Your task to perform on an android device: turn on showing notifications on the lock screen Image 0: 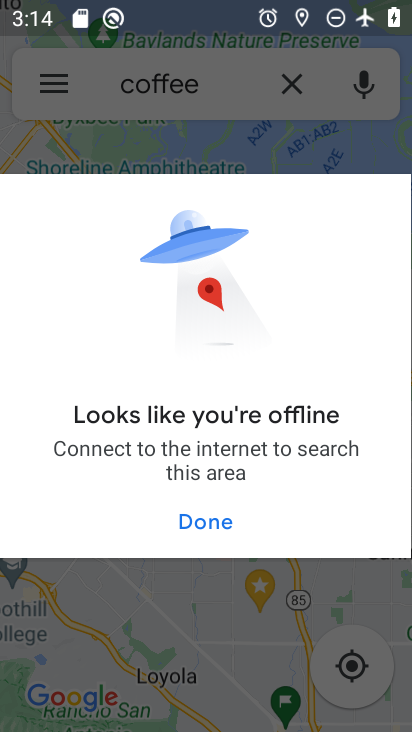
Step 0: press home button
Your task to perform on an android device: turn on showing notifications on the lock screen Image 1: 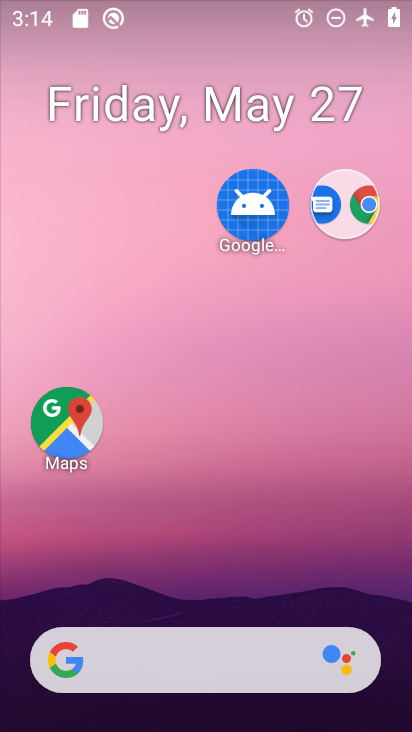
Step 1: drag from (315, 377) to (354, 272)
Your task to perform on an android device: turn on showing notifications on the lock screen Image 2: 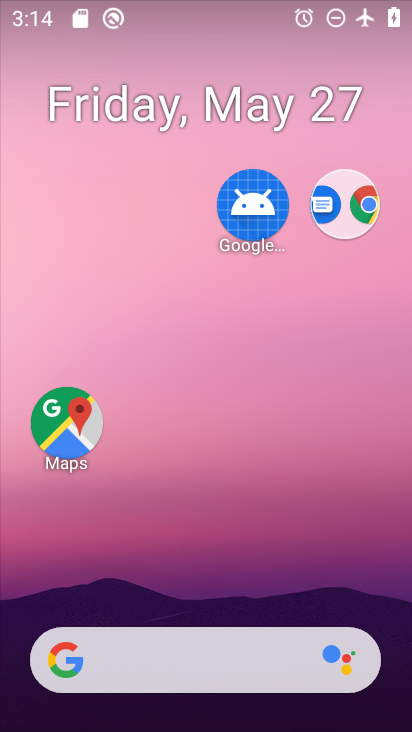
Step 2: drag from (191, 640) to (220, 264)
Your task to perform on an android device: turn on showing notifications on the lock screen Image 3: 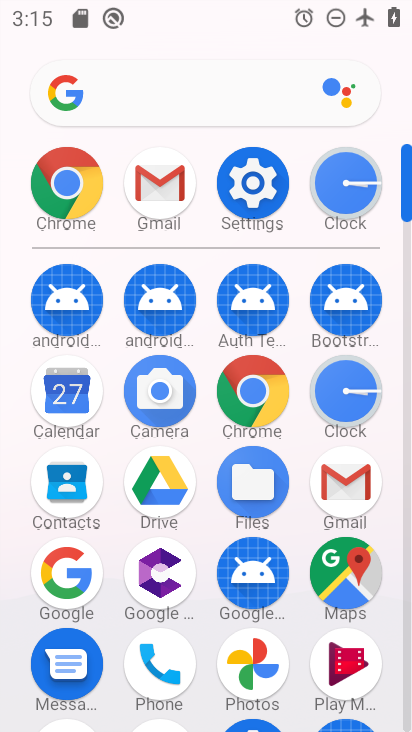
Step 3: click (263, 203)
Your task to perform on an android device: turn on showing notifications on the lock screen Image 4: 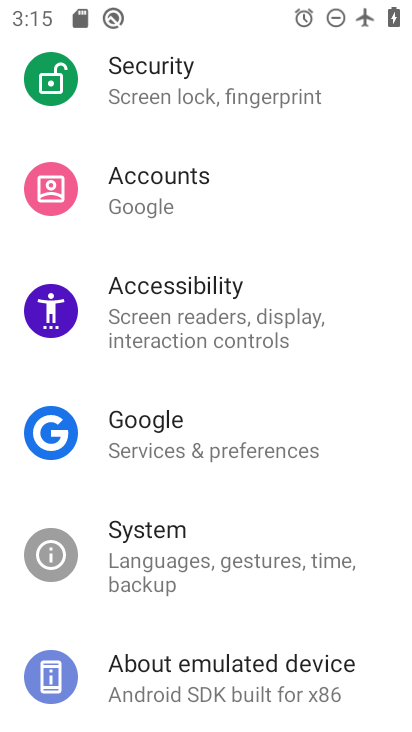
Step 4: drag from (262, 204) to (345, 731)
Your task to perform on an android device: turn on showing notifications on the lock screen Image 5: 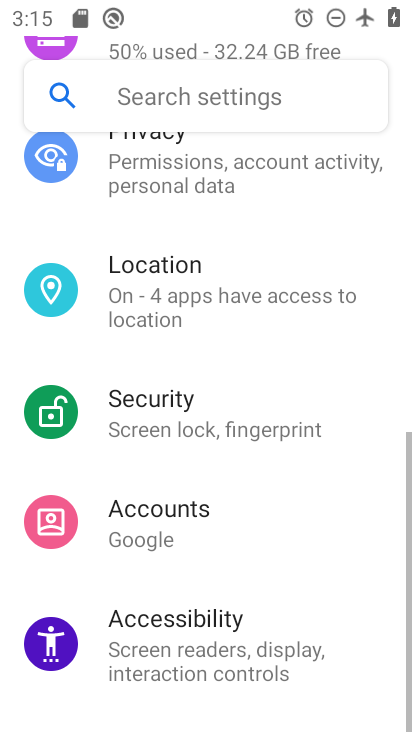
Step 5: drag from (238, 268) to (240, 631)
Your task to perform on an android device: turn on showing notifications on the lock screen Image 6: 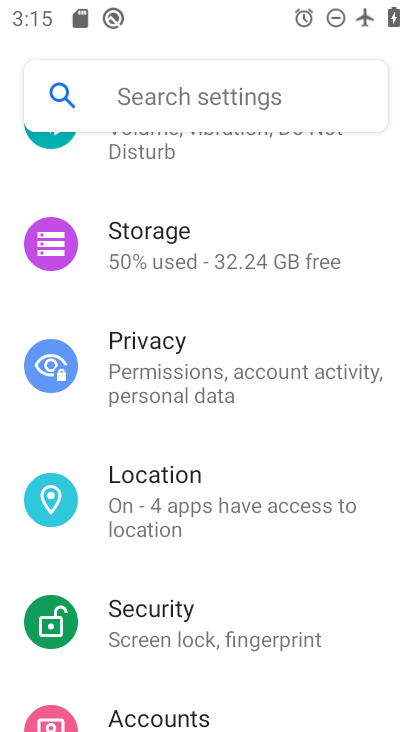
Step 6: drag from (231, 299) to (217, 562)
Your task to perform on an android device: turn on showing notifications on the lock screen Image 7: 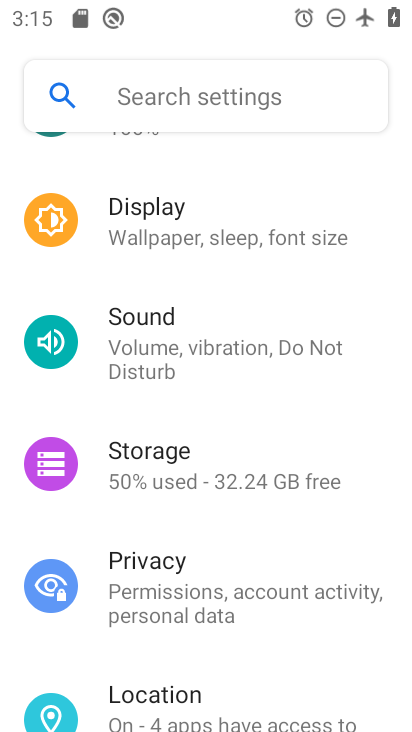
Step 7: drag from (239, 247) to (237, 464)
Your task to perform on an android device: turn on showing notifications on the lock screen Image 8: 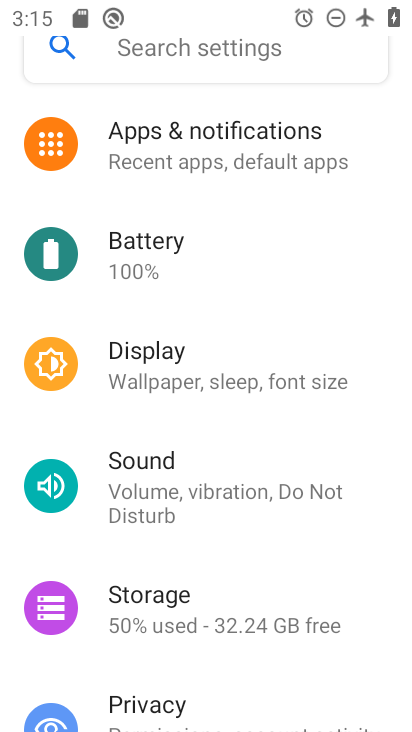
Step 8: drag from (270, 290) to (283, 505)
Your task to perform on an android device: turn on showing notifications on the lock screen Image 9: 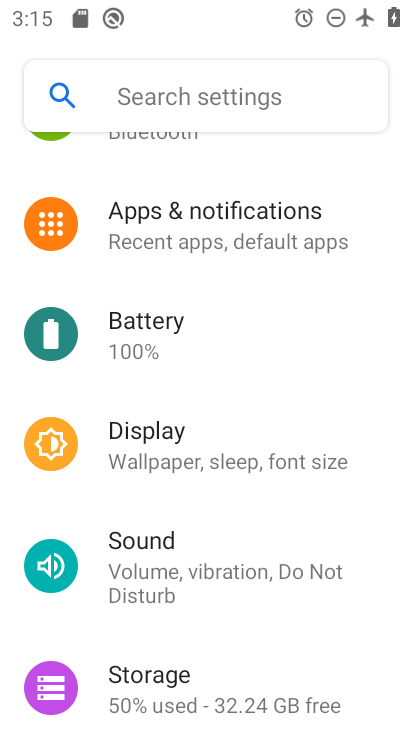
Step 9: click (267, 229)
Your task to perform on an android device: turn on showing notifications on the lock screen Image 10: 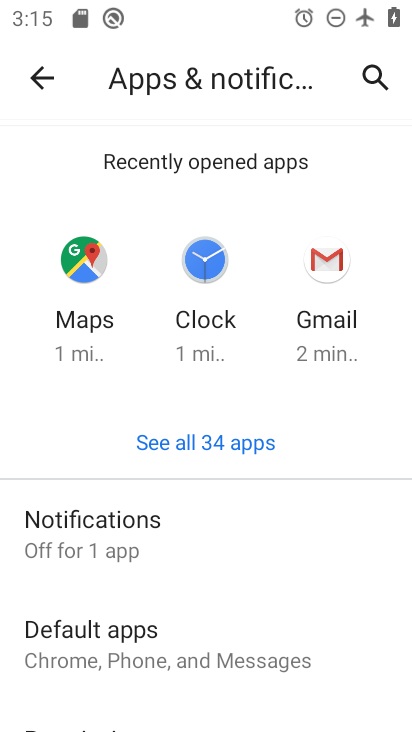
Step 10: click (174, 541)
Your task to perform on an android device: turn on showing notifications on the lock screen Image 11: 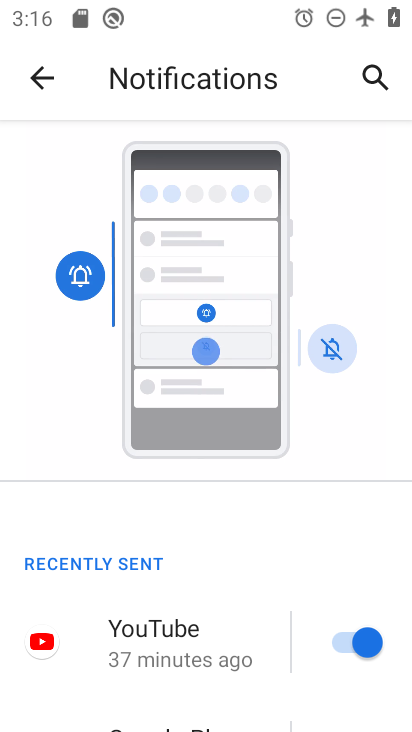
Step 11: drag from (186, 619) to (287, 161)
Your task to perform on an android device: turn on showing notifications on the lock screen Image 12: 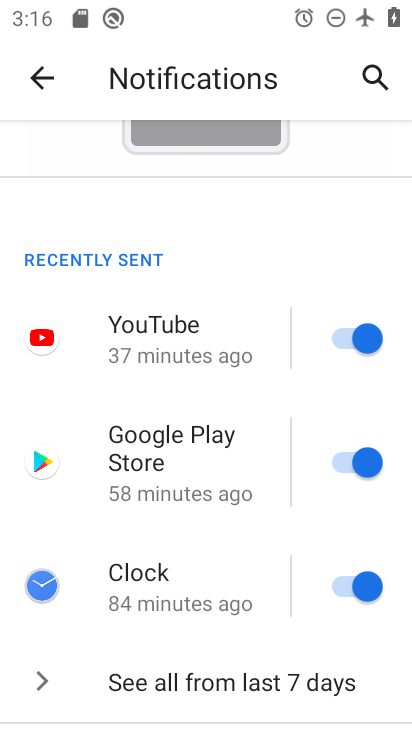
Step 12: drag from (192, 680) to (265, 250)
Your task to perform on an android device: turn on showing notifications on the lock screen Image 13: 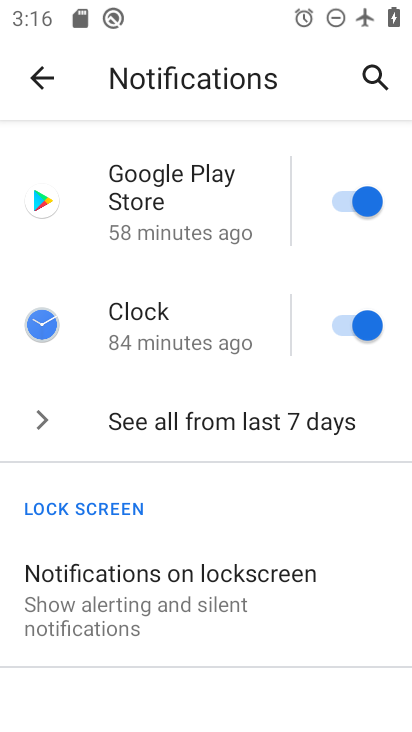
Step 13: click (171, 604)
Your task to perform on an android device: turn on showing notifications on the lock screen Image 14: 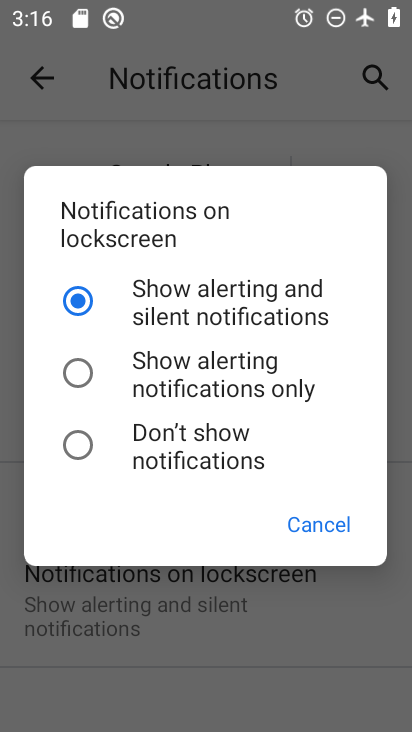
Step 14: task complete